Your task to perform on an android device: What's the weather going to be tomorrow? Image 0: 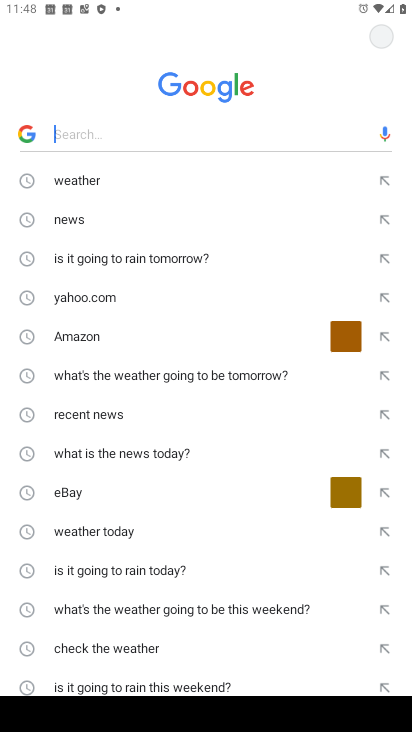
Step 0: press home button
Your task to perform on an android device: What's the weather going to be tomorrow? Image 1: 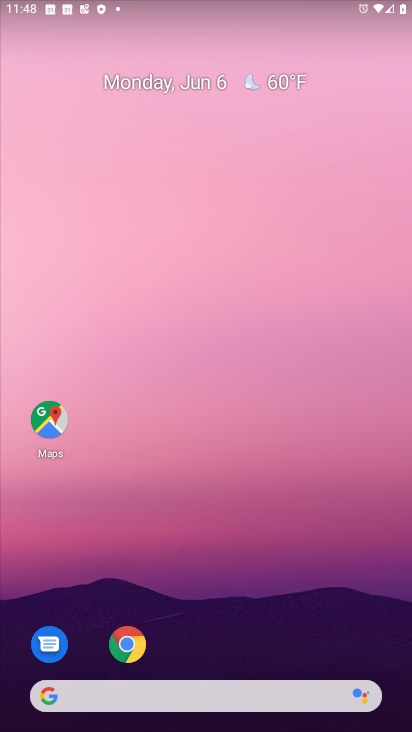
Step 1: click (173, 700)
Your task to perform on an android device: What's the weather going to be tomorrow? Image 2: 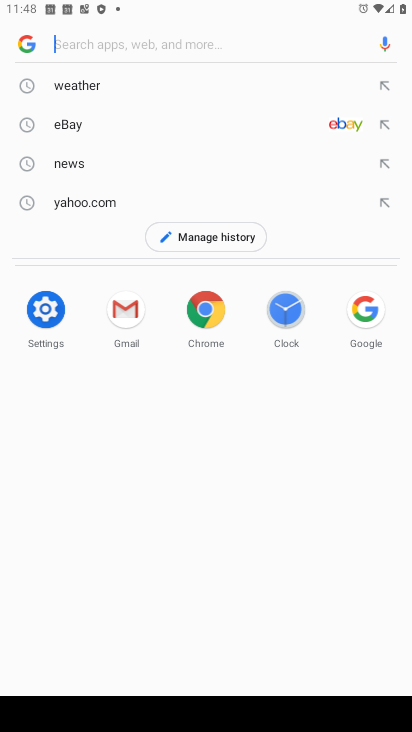
Step 2: click (139, 85)
Your task to perform on an android device: What's the weather going to be tomorrow? Image 3: 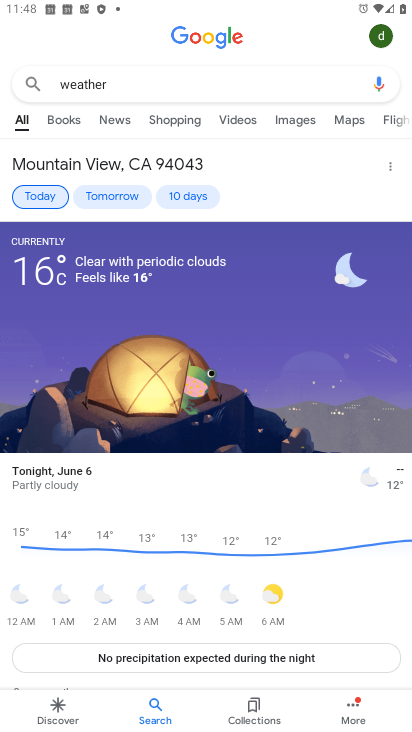
Step 3: click (129, 200)
Your task to perform on an android device: What's the weather going to be tomorrow? Image 4: 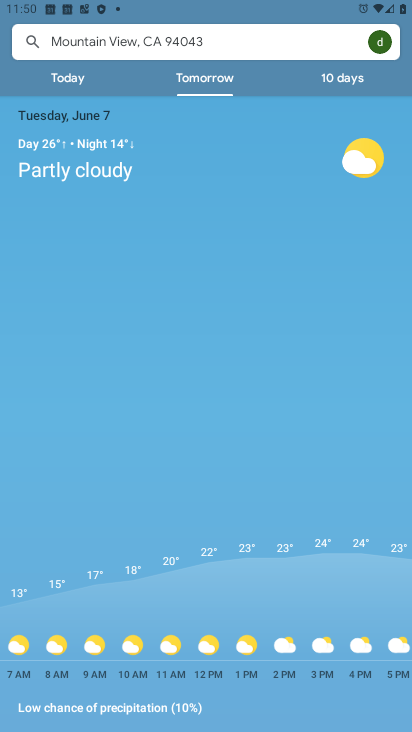
Step 4: task complete